Your task to perform on an android device: turn on sleep mode Image 0: 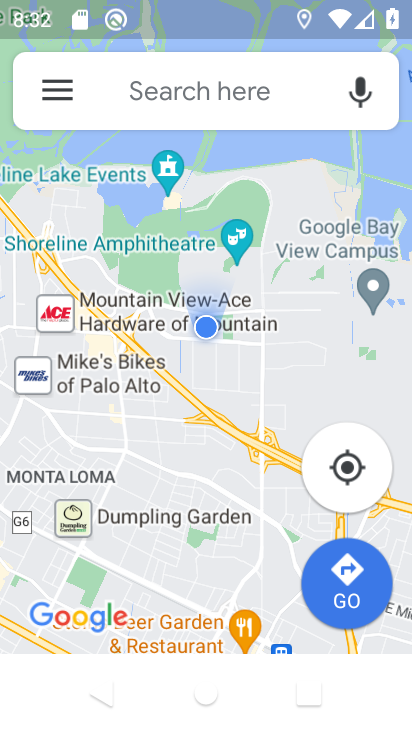
Step 0: press home button
Your task to perform on an android device: turn on sleep mode Image 1: 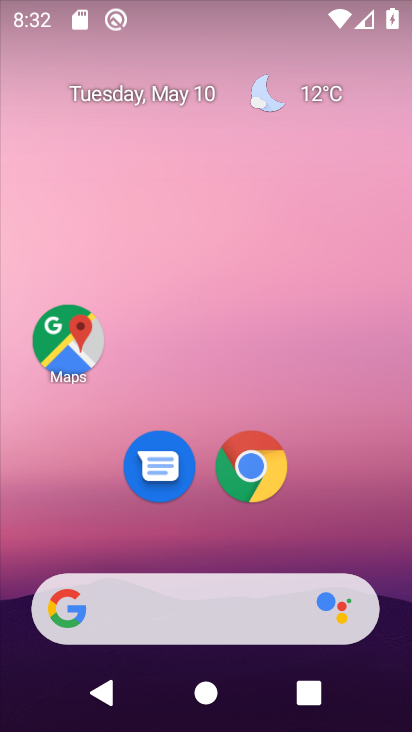
Step 1: drag from (258, 532) to (333, 0)
Your task to perform on an android device: turn on sleep mode Image 2: 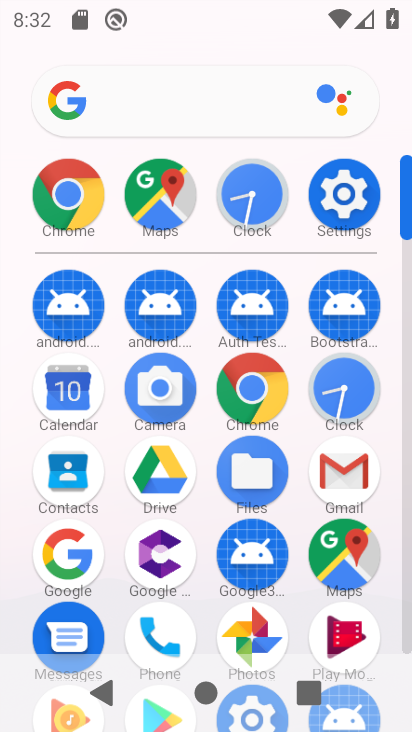
Step 2: click (339, 206)
Your task to perform on an android device: turn on sleep mode Image 3: 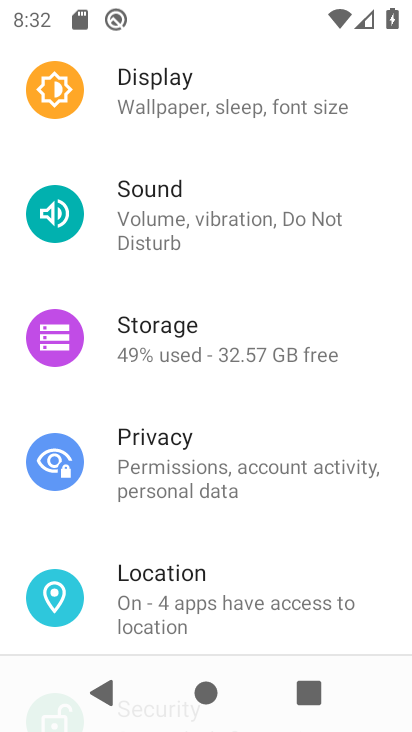
Step 3: drag from (301, 199) to (270, 594)
Your task to perform on an android device: turn on sleep mode Image 4: 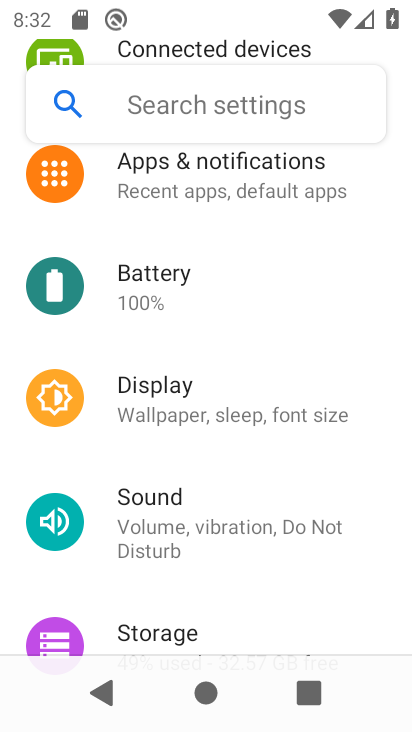
Step 4: click (231, 110)
Your task to perform on an android device: turn on sleep mode Image 5: 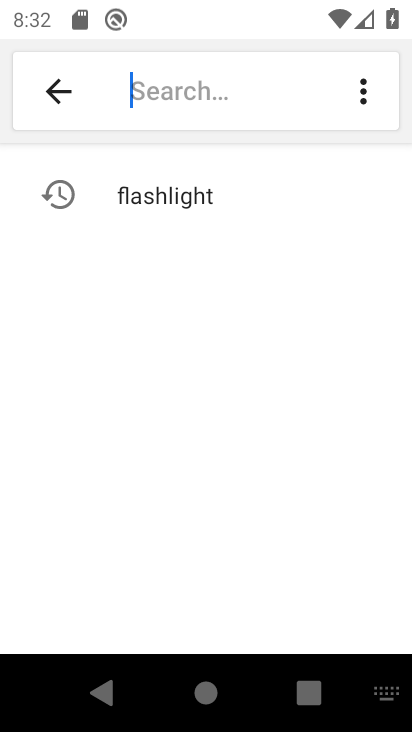
Step 5: type "sleep mode"
Your task to perform on an android device: turn on sleep mode Image 6: 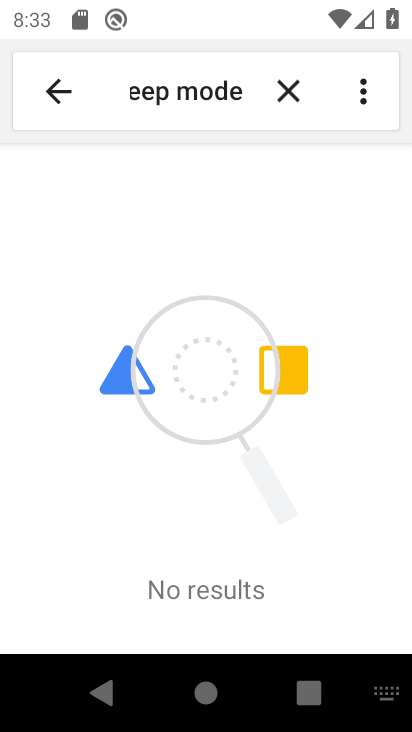
Step 6: task complete